Your task to perform on an android device: change the clock display to show seconds Image 0: 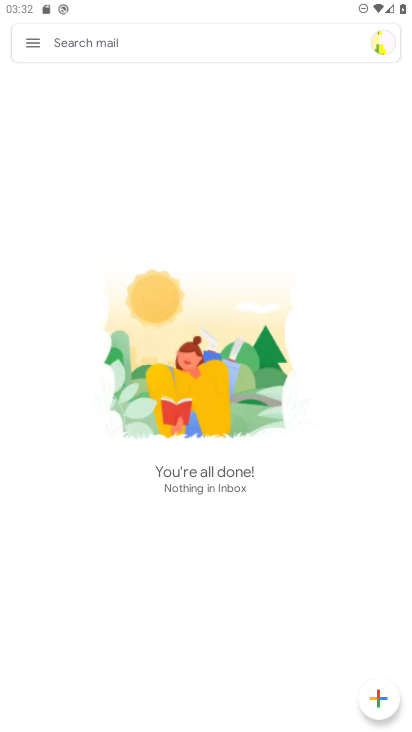
Step 0: press home button
Your task to perform on an android device: change the clock display to show seconds Image 1: 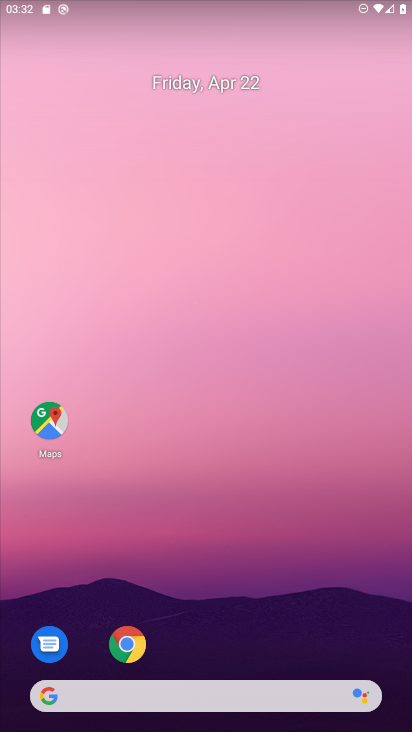
Step 1: drag from (243, 649) to (258, 71)
Your task to perform on an android device: change the clock display to show seconds Image 2: 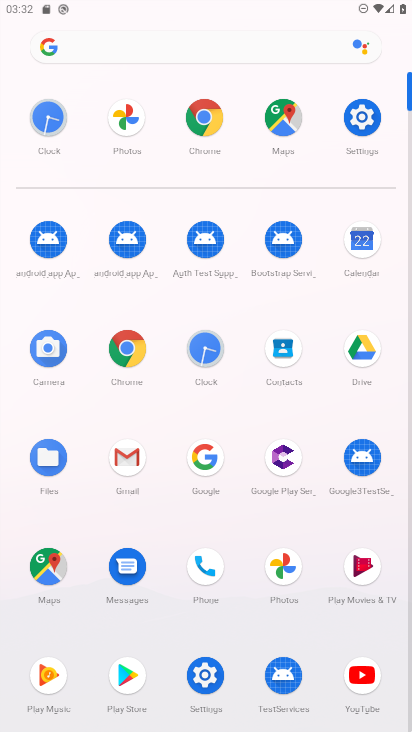
Step 2: click (209, 353)
Your task to perform on an android device: change the clock display to show seconds Image 3: 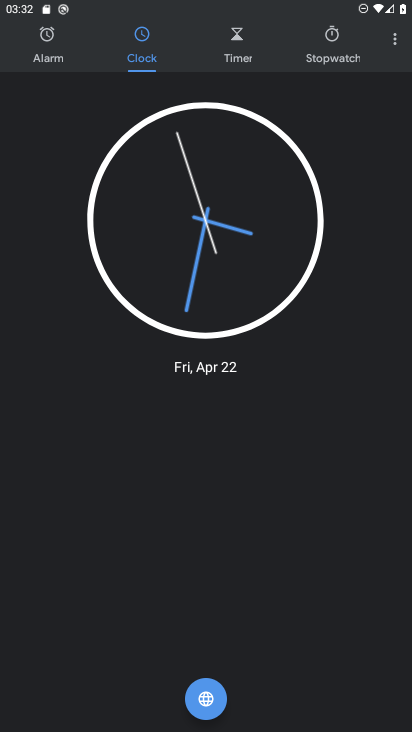
Step 3: click (396, 41)
Your task to perform on an android device: change the clock display to show seconds Image 4: 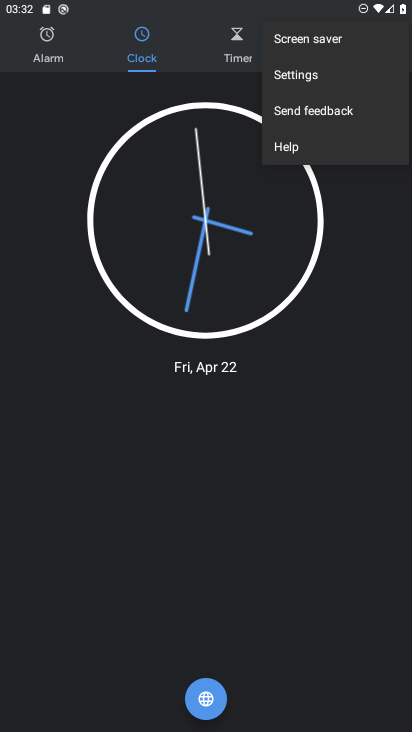
Step 4: click (307, 77)
Your task to perform on an android device: change the clock display to show seconds Image 5: 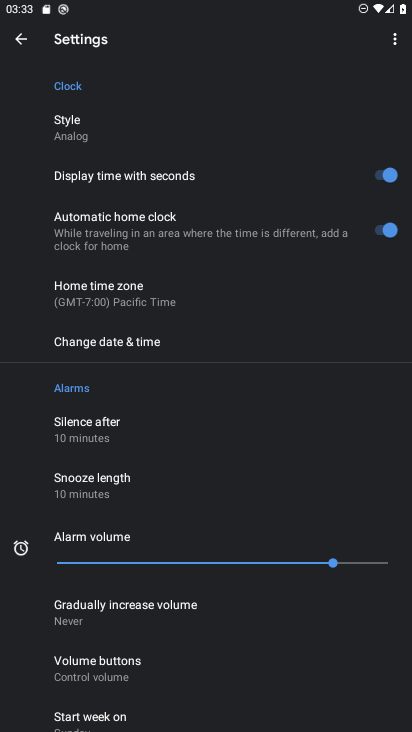
Step 5: task complete